Your task to perform on an android device: turn pop-ups on in chrome Image 0: 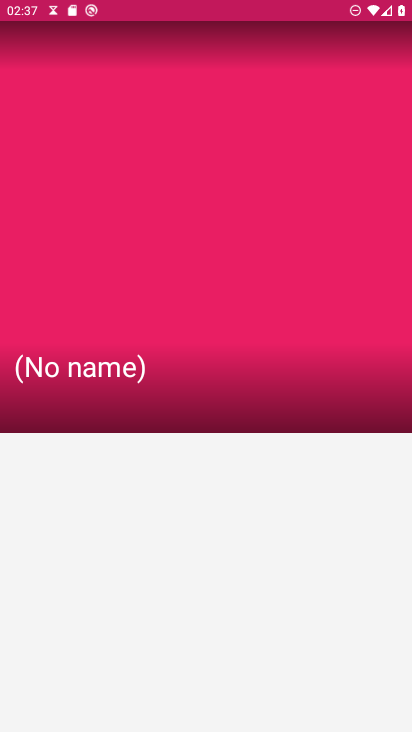
Step 0: press home button
Your task to perform on an android device: turn pop-ups on in chrome Image 1: 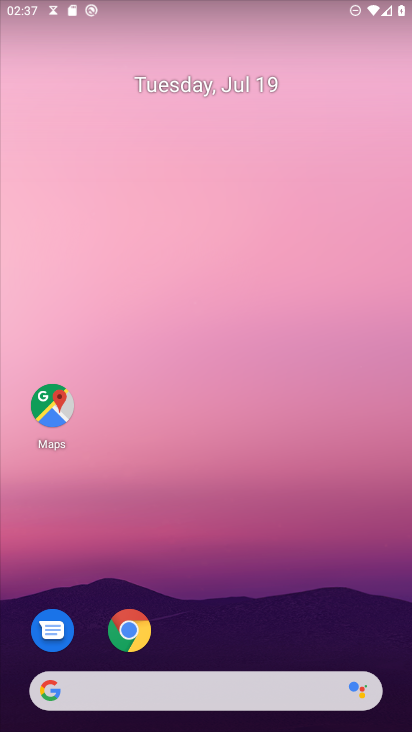
Step 1: click (132, 630)
Your task to perform on an android device: turn pop-ups on in chrome Image 2: 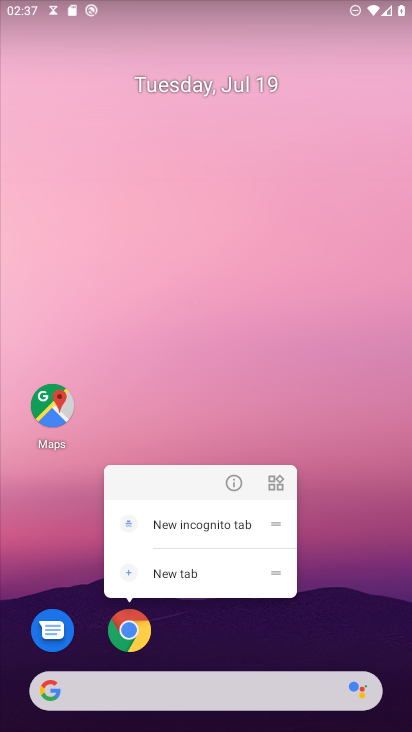
Step 2: click (137, 624)
Your task to perform on an android device: turn pop-ups on in chrome Image 3: 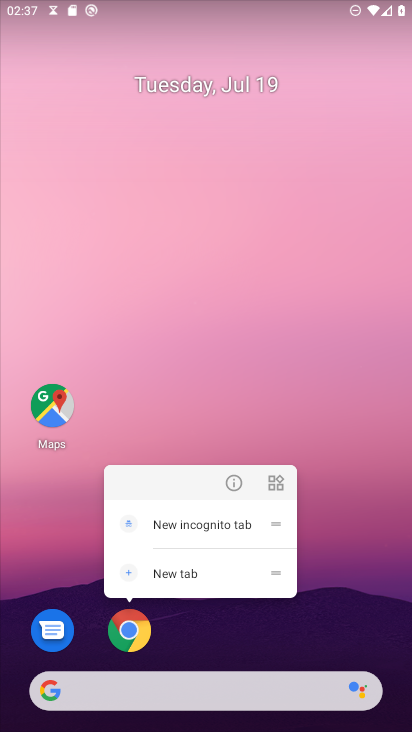
Step 3: click (129, 632)
Your task to perform on an android device: turn pop-ups on in chrome Image 4: 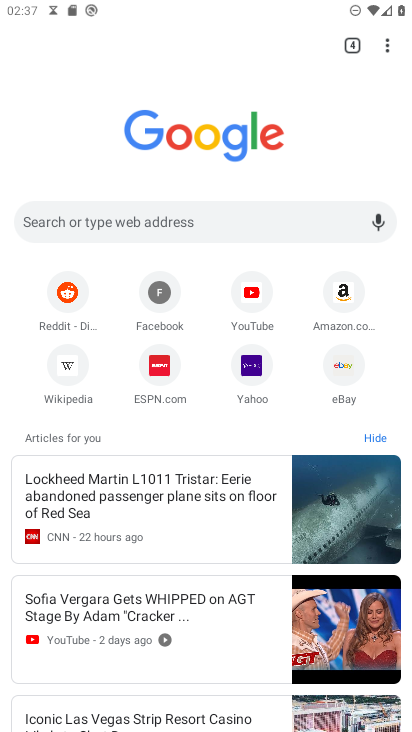
Step 4: click (386, 49)
Your task to perform on an android device: turn pop-ups on in chrome Image 5: 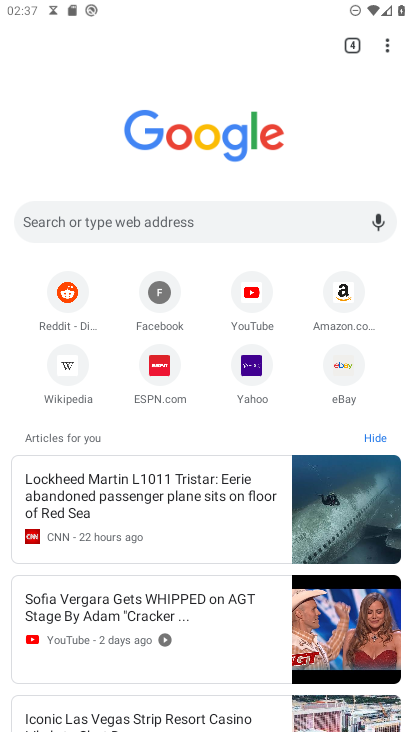
Step 5: drag from (386, 52) to (249, 381)
Your task to perform on an android device: turn pop-ups on in chrome Image 6: 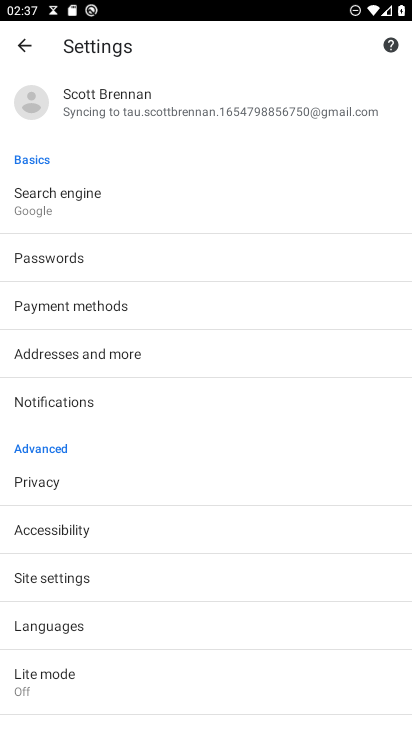
Step 6: click (67, 574)
Your task to perform on an android device: turn pop-ups on in chrome Image 7: 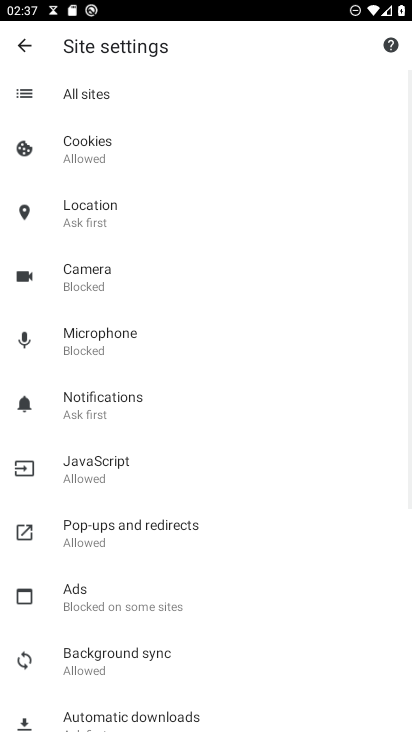
Step 7: click (131, 533)
Your task to perform on an android device: turn pop-ups on in chrome Image 8: 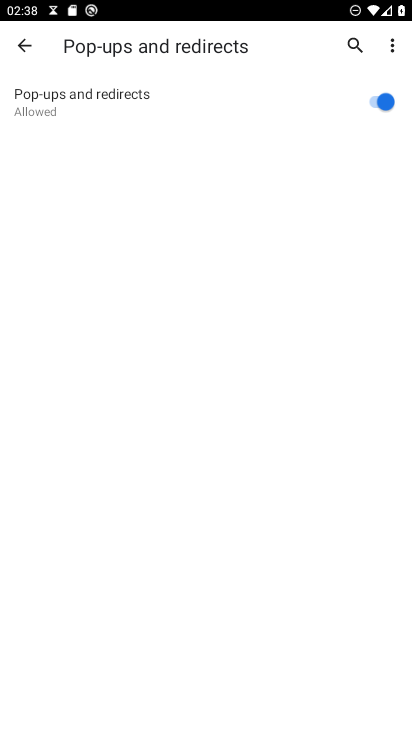
Step 8: task complete